Your task to perform on an android device: Check the weather Image 0: 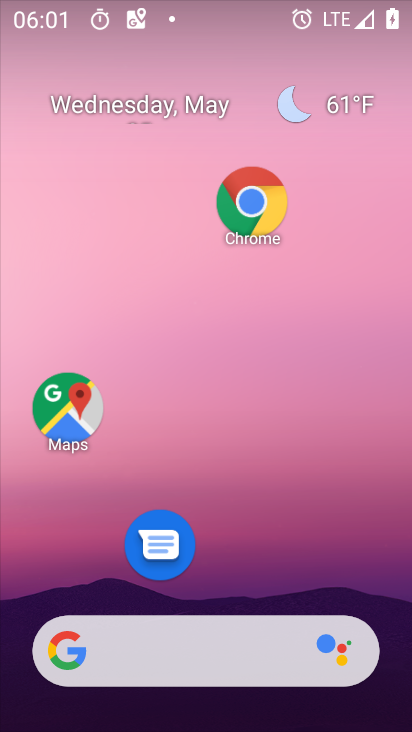
Step 0: drag from (197, 610) to (198, 111)
Your task to perform on an android device: Check the weather Image 1: 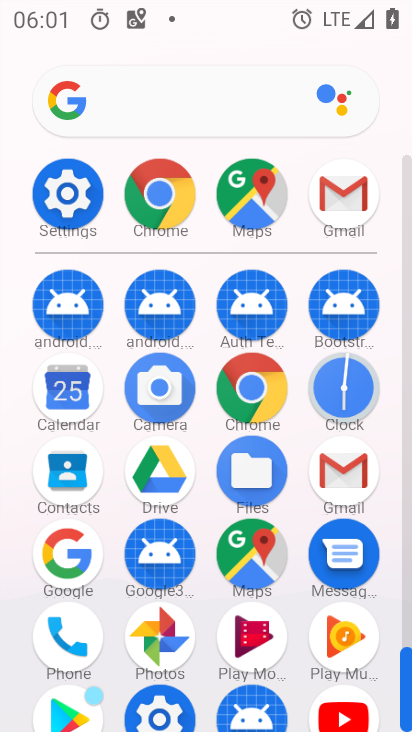
Step 1: click (82, 554)
Your task to perform on an android device: Check the weather Image 2: 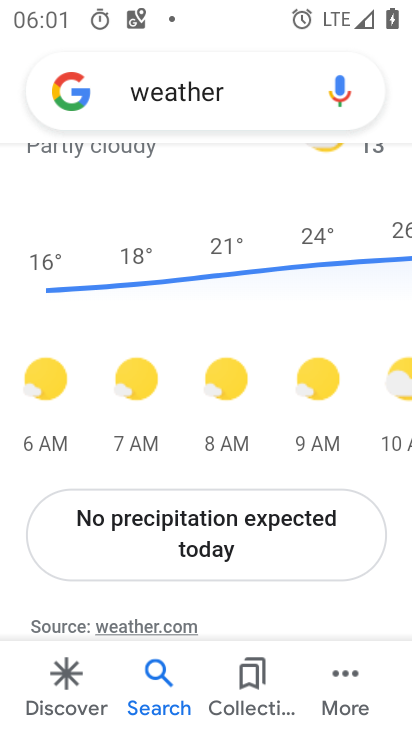
Step 2: task complete